Your task to perform on an android device: Open Chrome and go to settings Image 0: 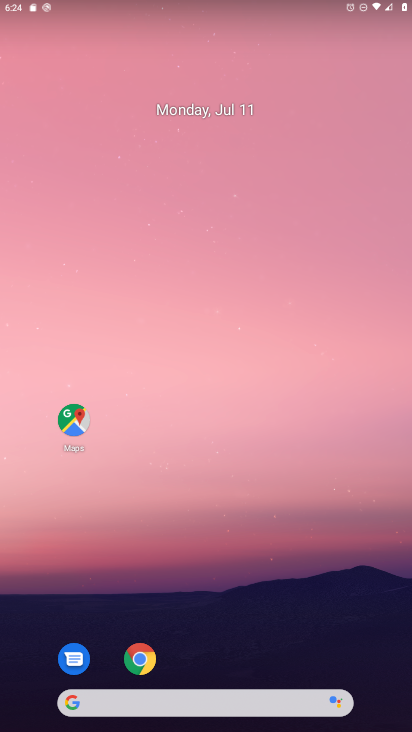
Step 0: click (141, 660)
Your task to perform on an android device: Open Chrome and go to settings Image 1: 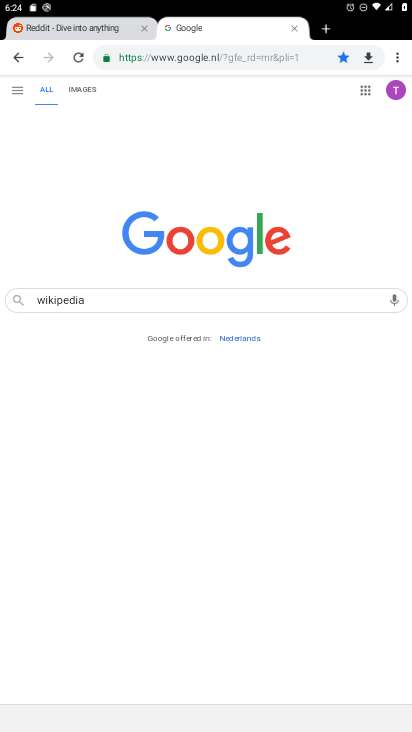
Step 1: click (394, 59)
Your task to perform on an android device: Open Chrome and go to settings Image 2: 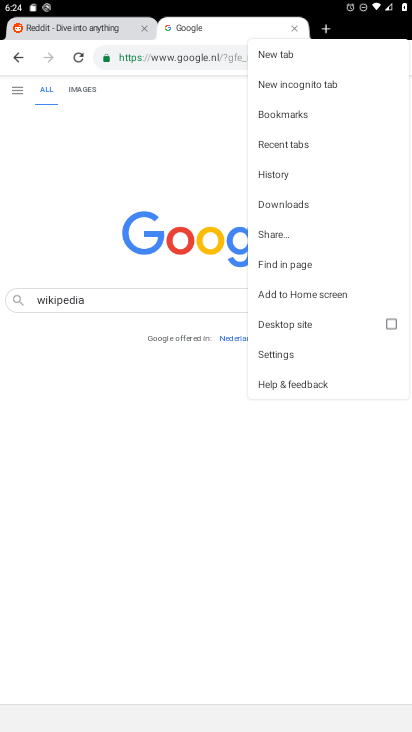
Step 2: click (286, 351)
Your task to perform on an android device: Open Chrome and go to settings Image 3: 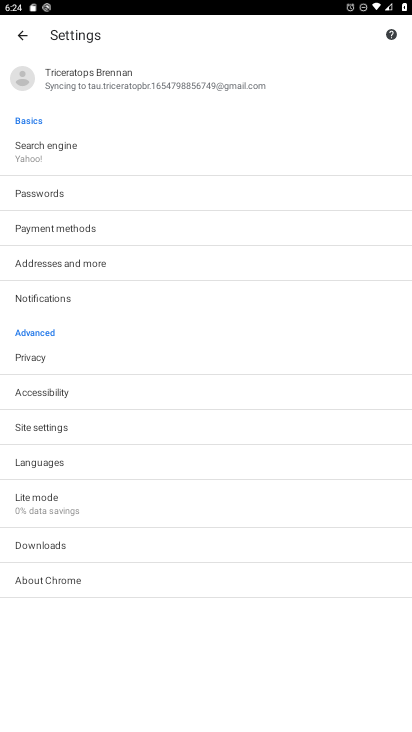
Step 3: task complete